Your task to perform on an android device: Go to Amazon Image 0: 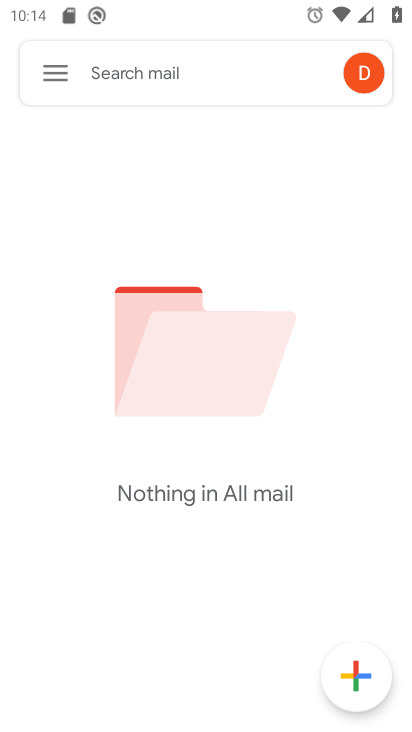
Step 0: press home button
Your task to perform on an android device: Go to Amazon Image 1: 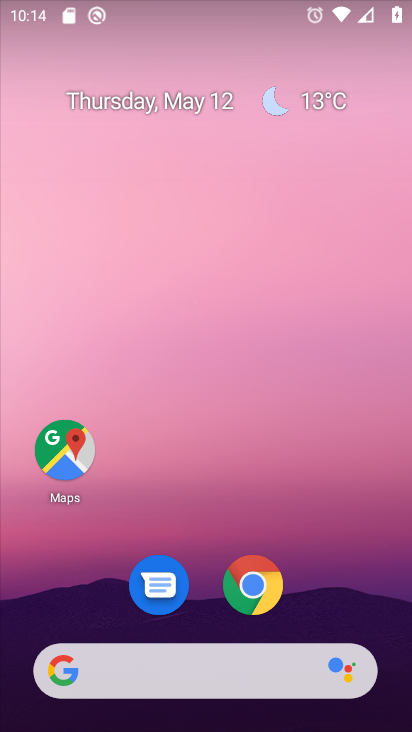
Step 1: drag from (211, 478) to (277, 100)
Your task to perform on an android device: Go to Amazon Image 2: 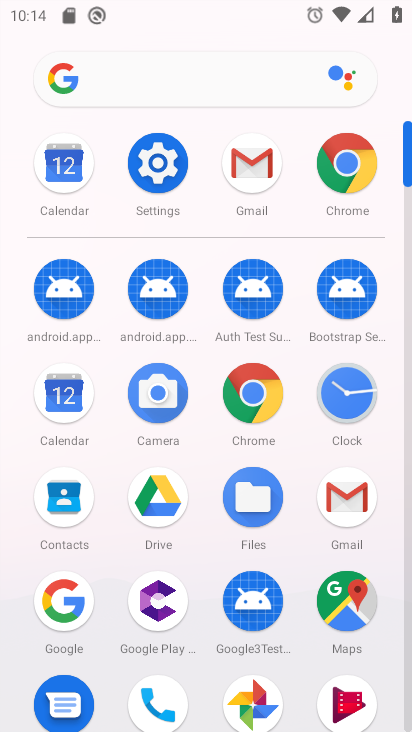
Step 2: click (345, 172)
Your task to perform on an android device: Go to Amazon Image 3: 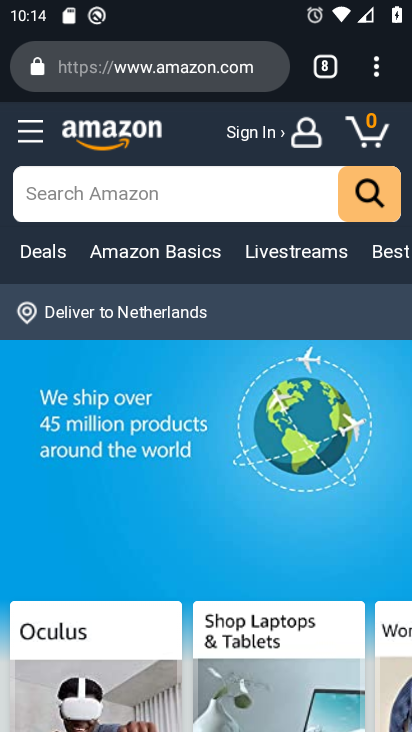
Step 3: task complete